Your task to perform on an android device: visit the assistant section in the google photos Image 0: 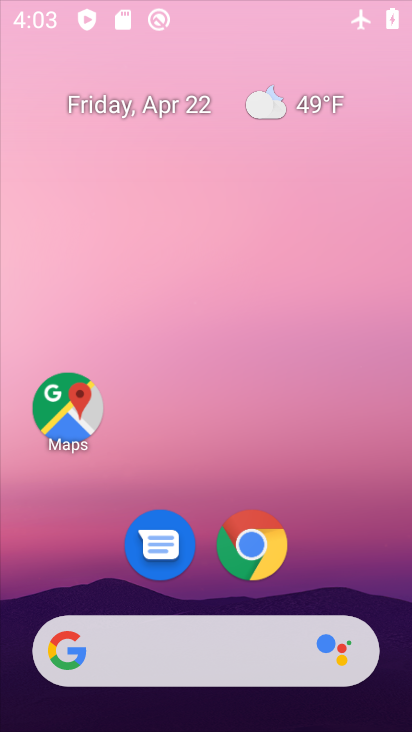
Step 0: click (376, 514)
Your task to perform on an android device: visit the assistant section in the google photos Image 1: 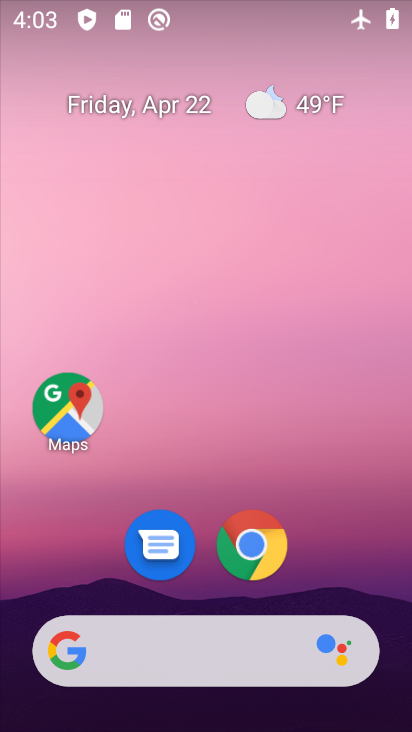
Step 1: drag from (351, 407) to (336, 77)
Your task to perform on an android device: visit the assistant section in the google photos Image 2: 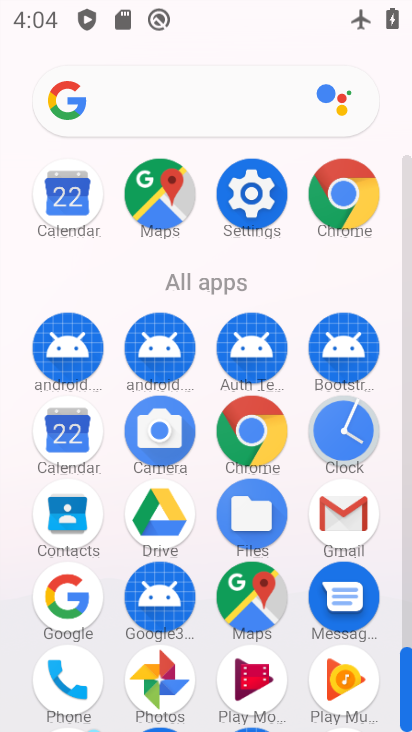
Step 2: drag from (397, 490) to (408, 115)
Your task to perform on an android device: visit the assistant section in the google photos Image 3: 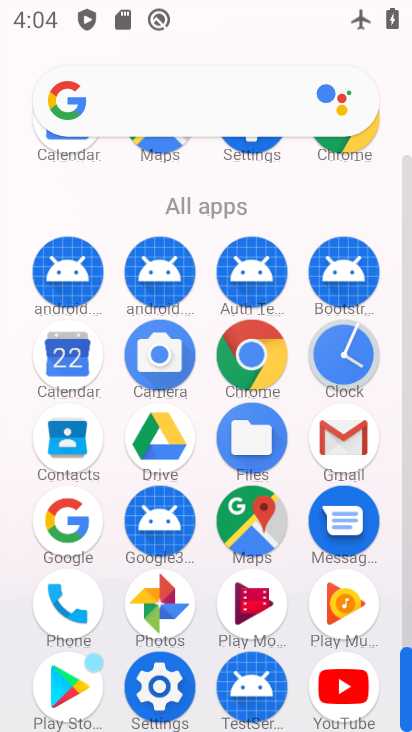
Step 3: click (147, 596)
Your task to perform on an android device: visit the assistant section in the google photos Image 4: 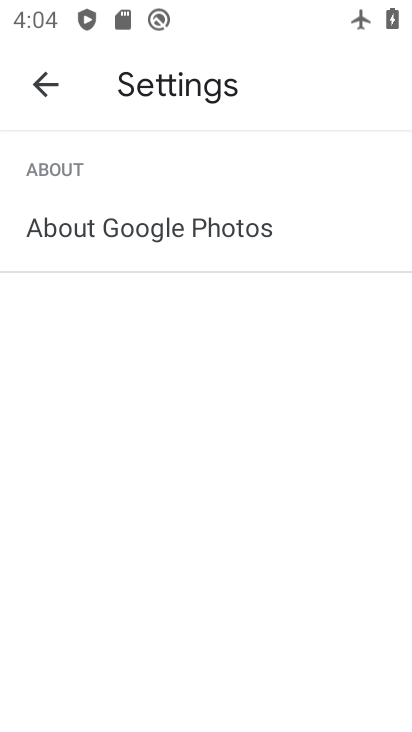
Step 4: click (48, 90)
Your task to perform on an android device: visit the assistant section in the google photos Image 5: 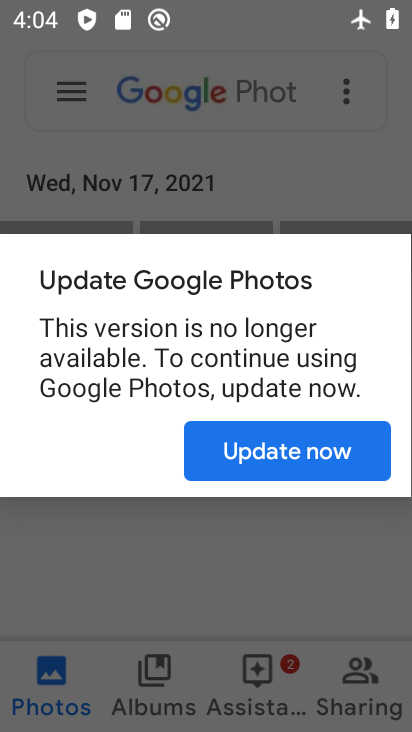
Step 5: click (271, 451)
Your task to perform on an android device: visit the assistant section in the google photos Image 6: 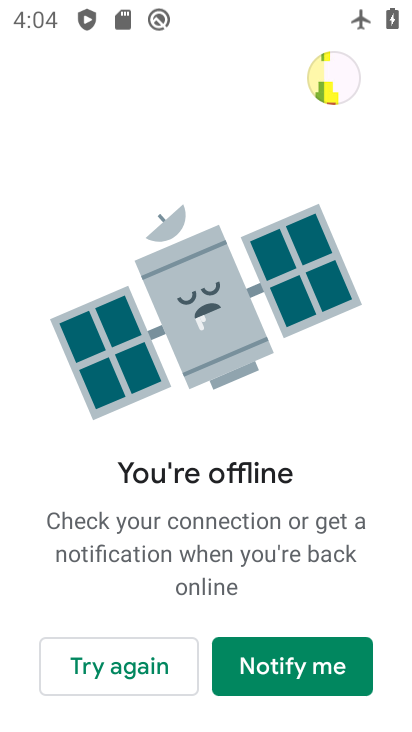
Step 6: click (142, 667)
Your task to perform on an android device: visit the assistant section in the google photos Image 7: 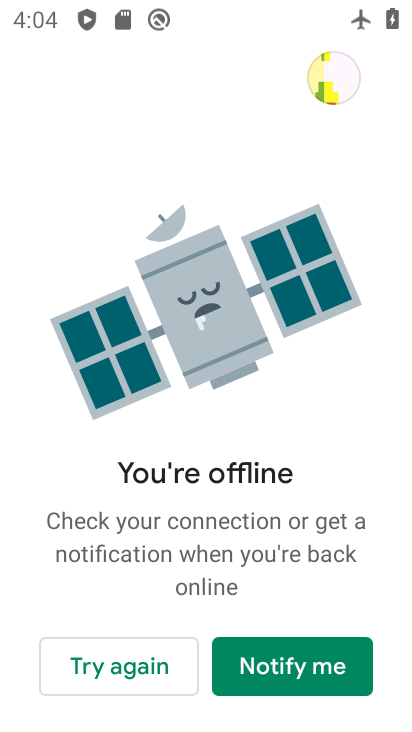
Step 7: task complete